Your task to perform on an android device: Open the map Image 0: 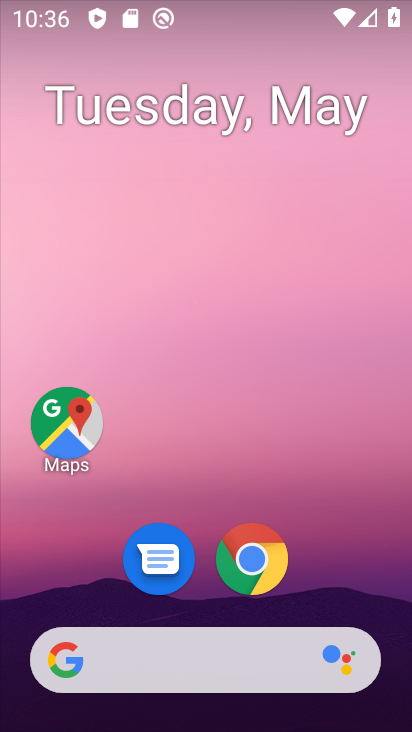
Step 0: drag from (332, 575) to (350, 183)
Your task to perform on an android device: Open the map Image 1: 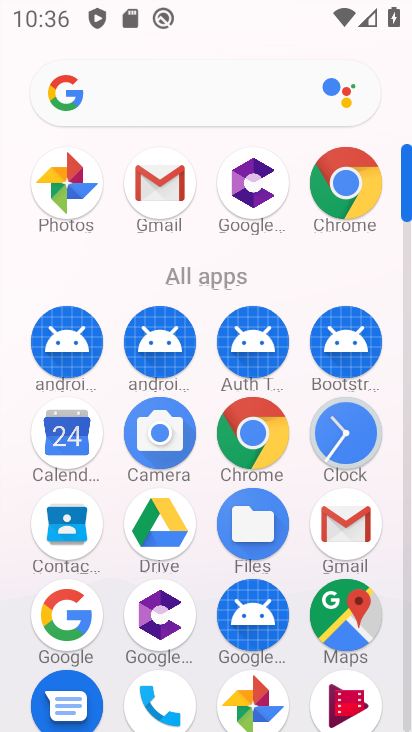
Step 1: drag from (296, 576) to (281, 350)
Your task to perform on an android device: Open the map Image 2: 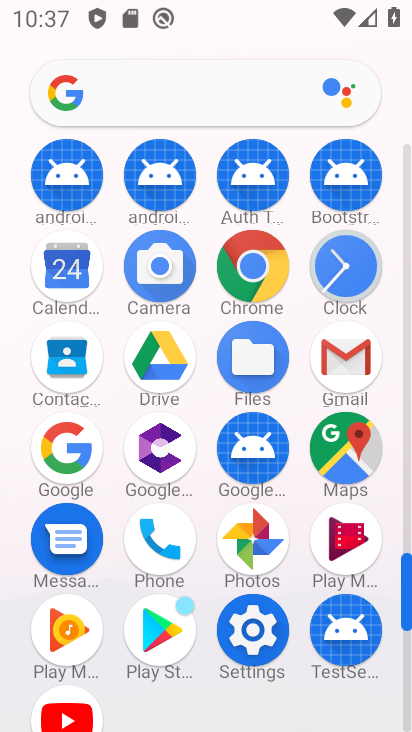
Step 2: click (354, 460)
Your task to perform on an android device: Open the map Image 3: 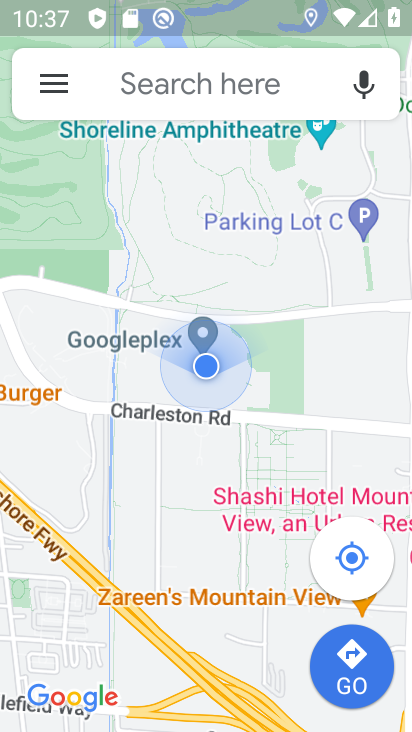
Step 3: task complete